Your task to perform on an android device: empty trash in the gmail app Image 0: 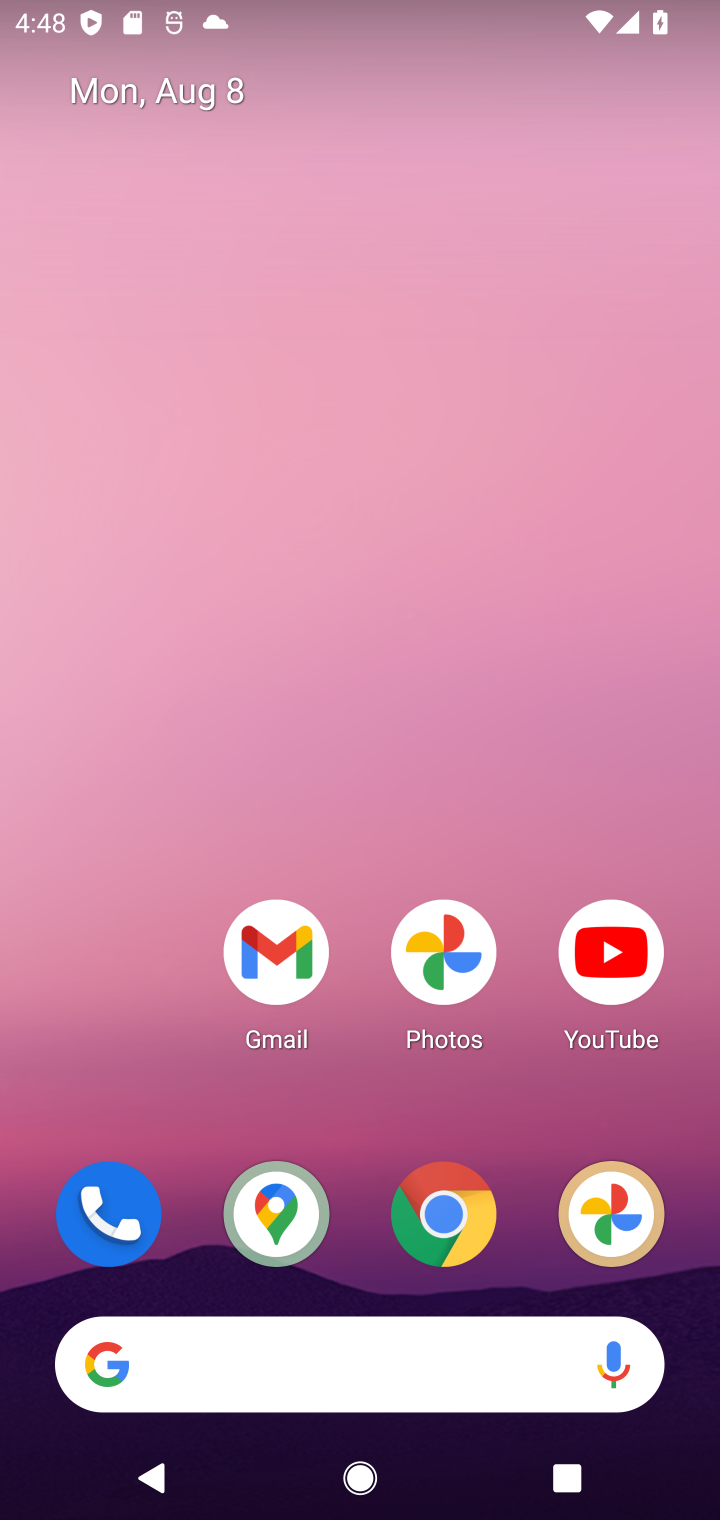
Step 0: drag from (336, 1078) to (316, 273)
Your task to perform on an android device: empty trash in the gmail app Image 1: 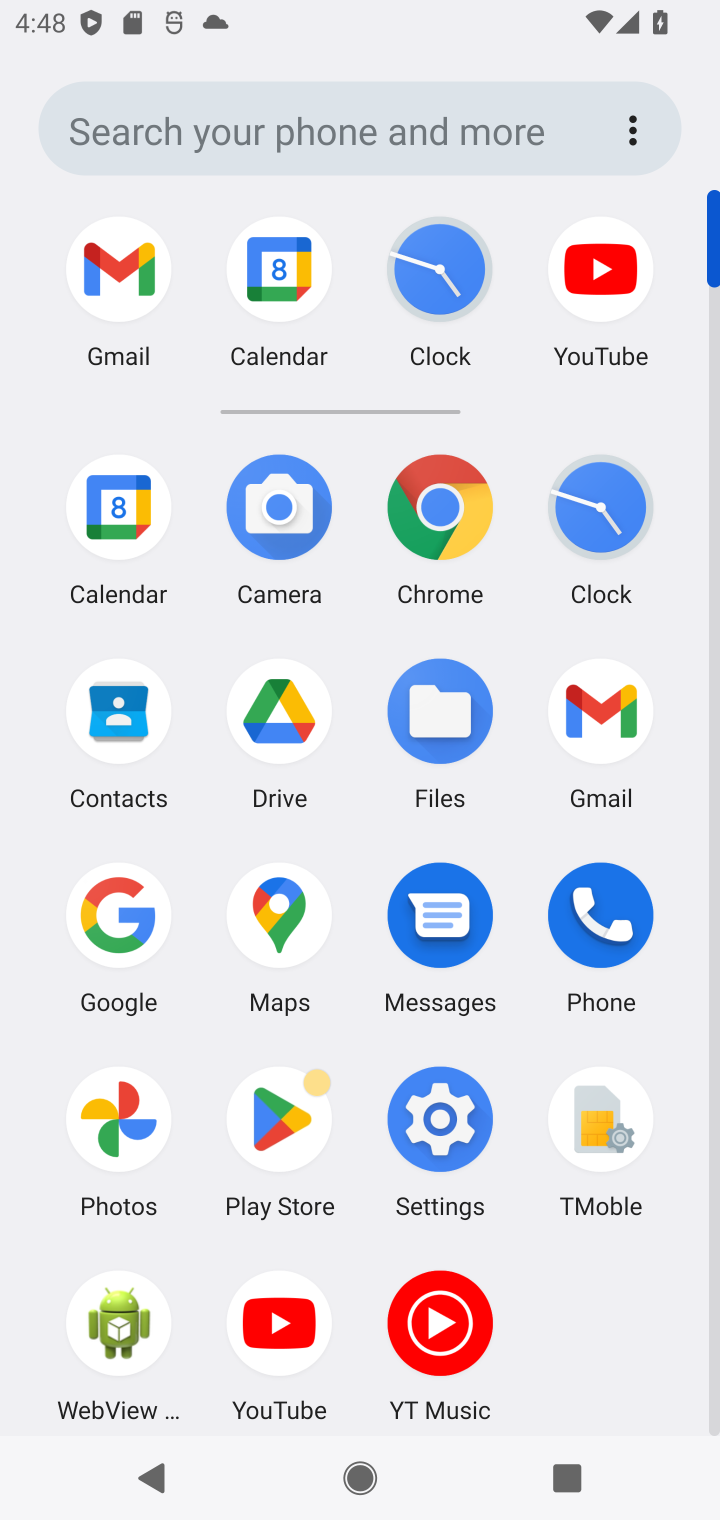
Step 1: click (580, 705)
Your task to perform on an android device: empty trash in the gmail app Image 2: 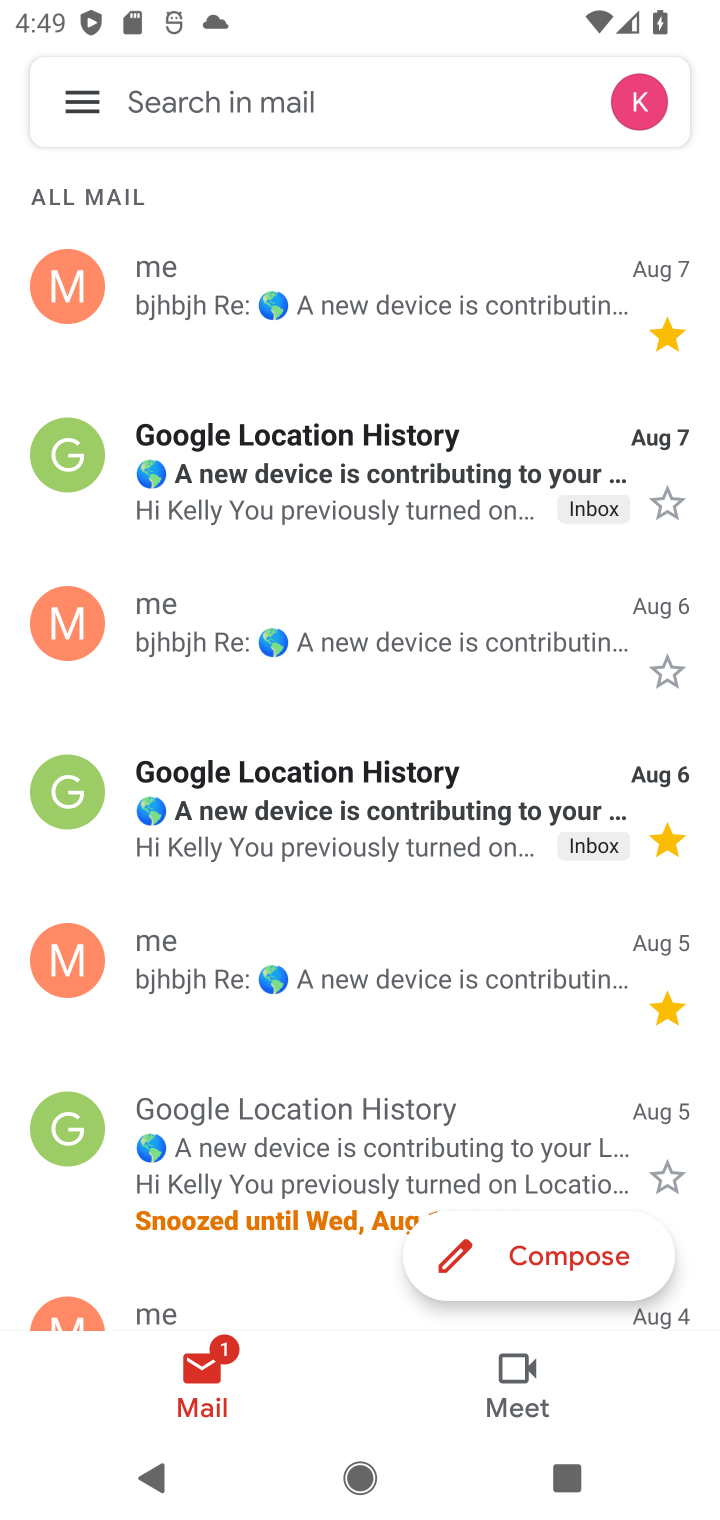
Step 2: click (90, 103)
Your task to perform on an android device: empty trash in the gmail app Image 3: 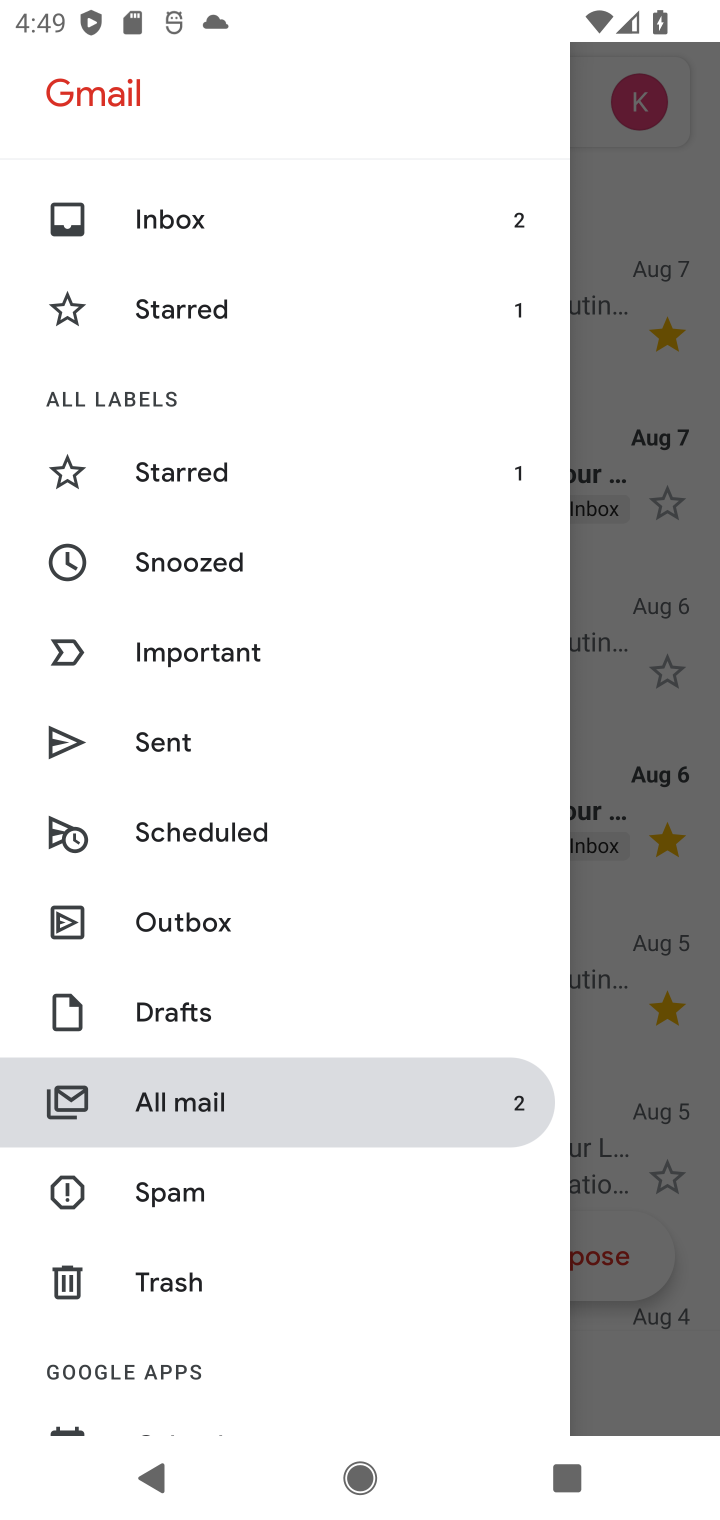
Step 3: click (178, 1283)
Your task to perform on an android device: empty trash in the gmail app Image 4: 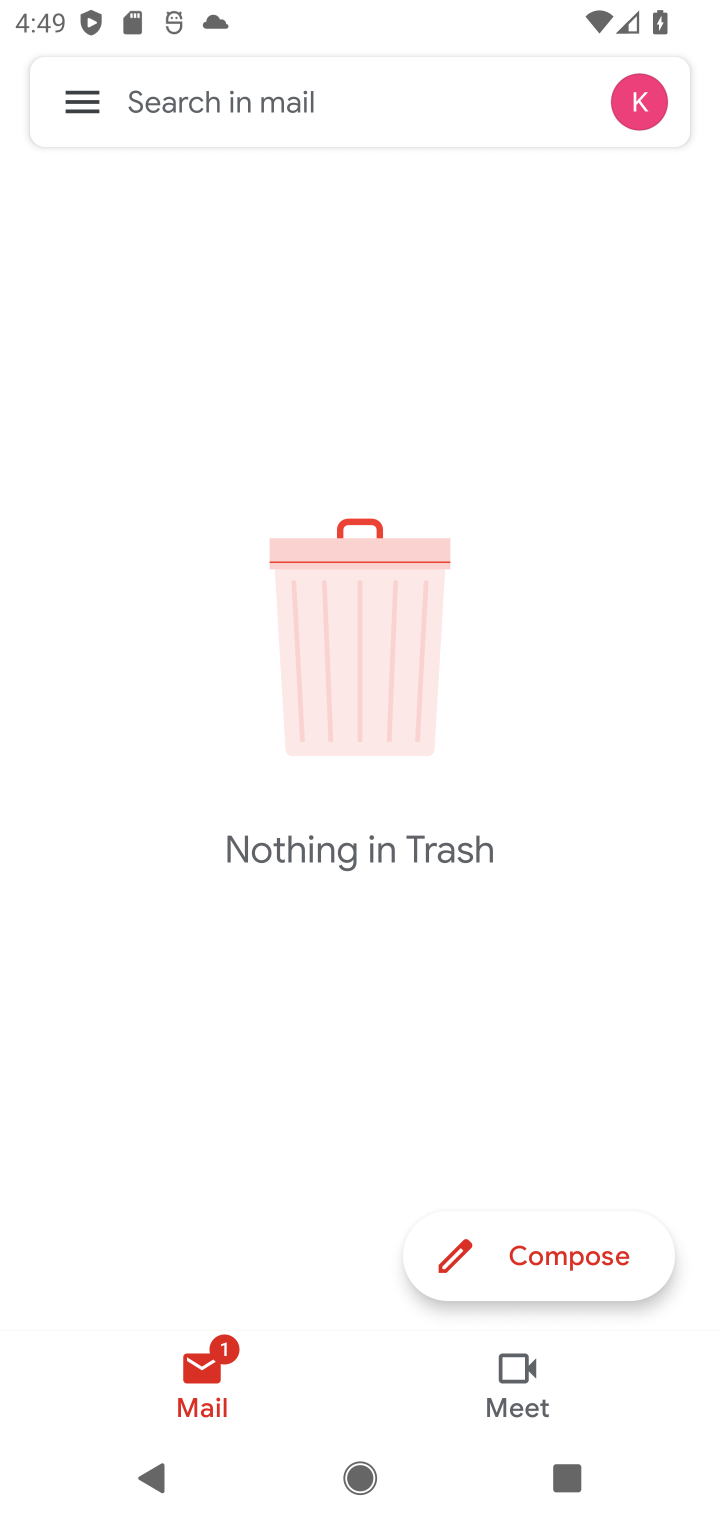
Step 4: task complete